Your task to perform on an android device: set the stopwatch Image 0: 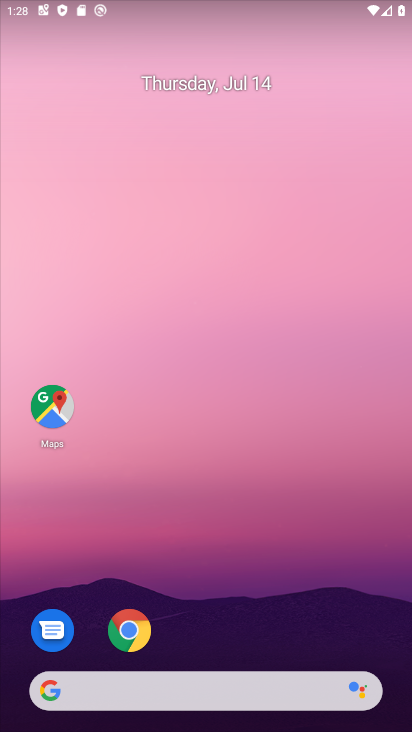
Step 0: drag from (223, 692) to (165, 198)
Your task to perform on an android device: set the stopwatch Image 1: 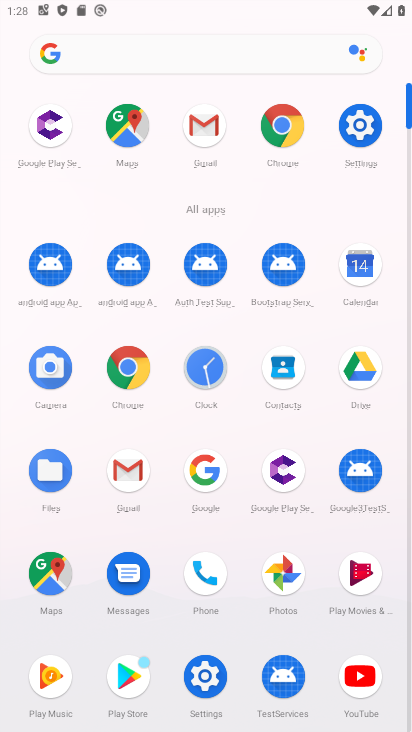
Step 1: click (208, 373)
Your task to perform on an android device: set the stopwatch Image 2: 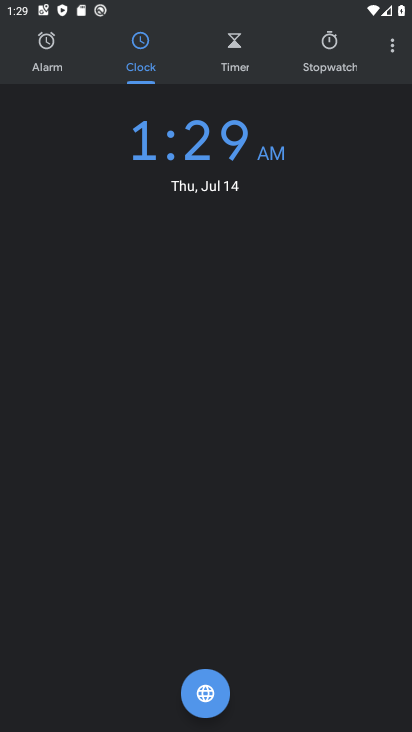
Step 2: click (335, 68)
Your task to perform on an android device: set the stopwatch Image 3: 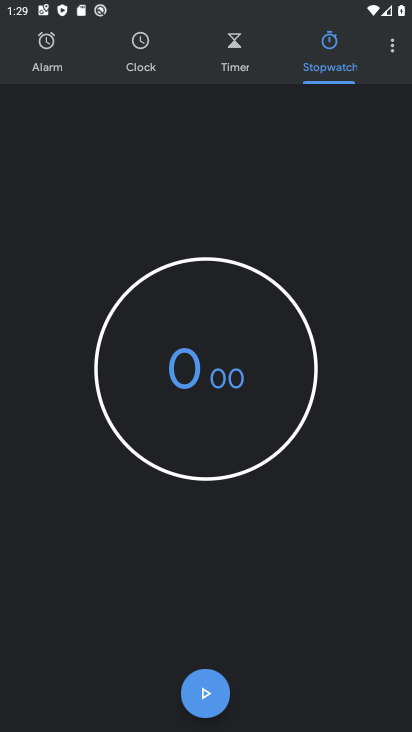
Step 3: click (205, 701)
Your task to perform on an android device: set the stopwatch Image 4: 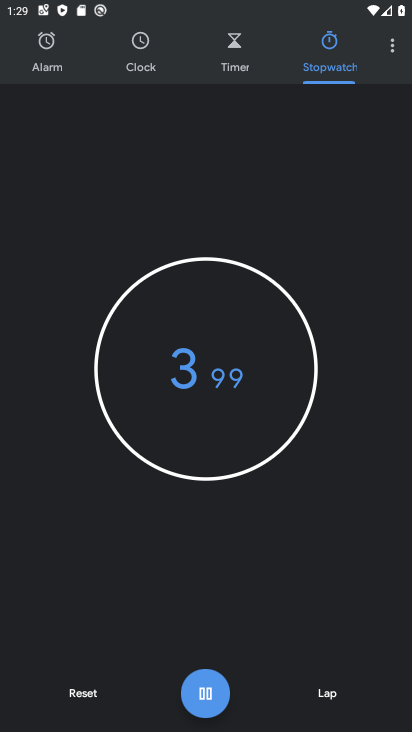
Step 4: task complete